Your task to perform on an android device: Search for seafood restaurants on Google Maps Image 0: 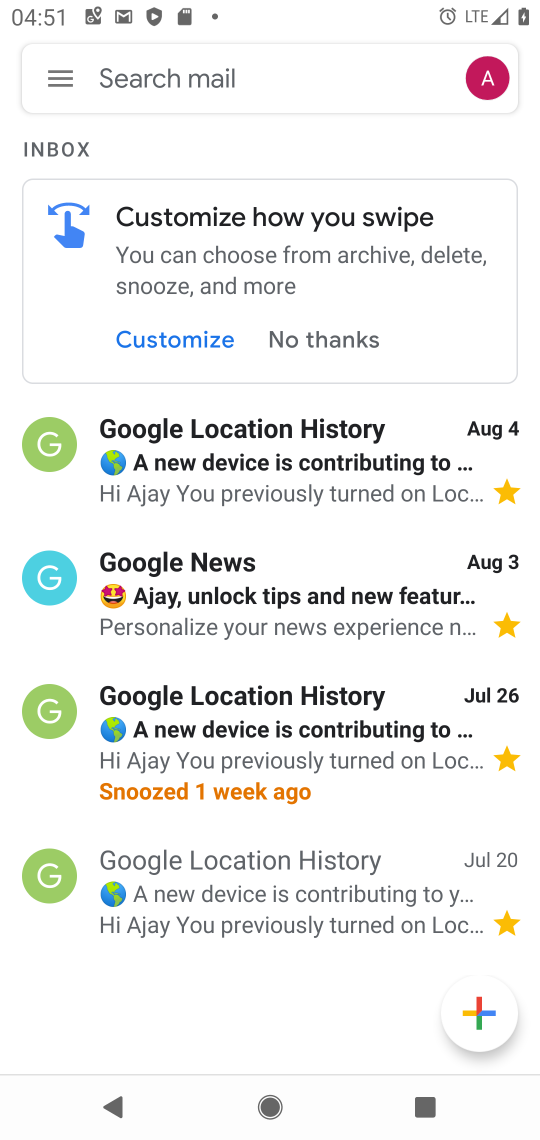
Step 0: press back button
Your task to perform on an android device: Search for seafood restaurants on Google Maps Image 1: 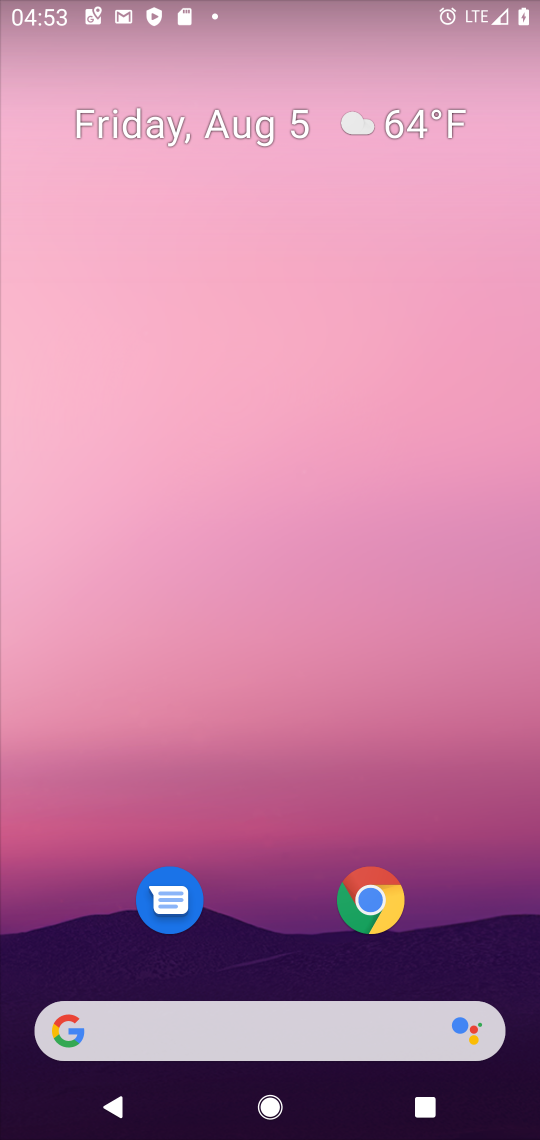
Step 1: drag from (283, 828) to (457, 238)
Your task to perform on an android device: Search for seafood restaurants on Google Maps Image 2: 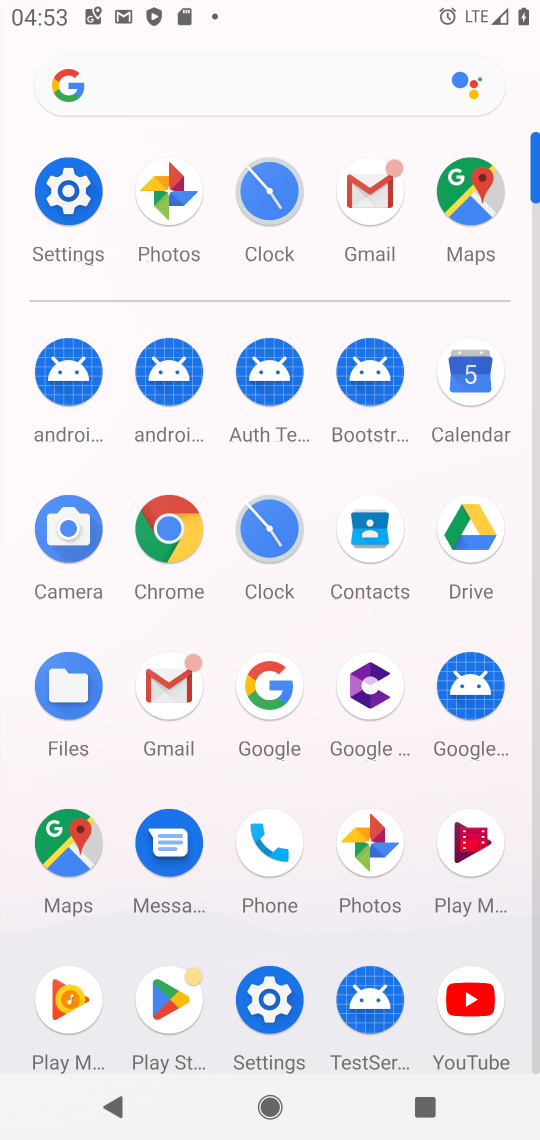
Step 2: click (63, 838)
Your task to perform on an android device: Search for seafood restaurants on Google Maps Image 3: 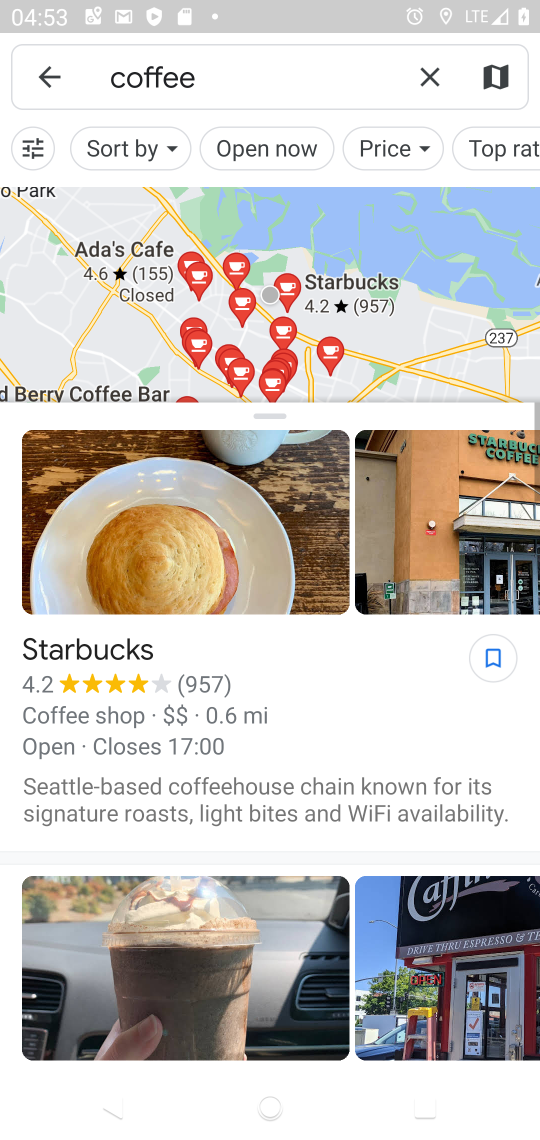
Step 3: click (432, 95)
Your task to perform on an android device: Search for seafood restaurants on Google Maps Image 4: 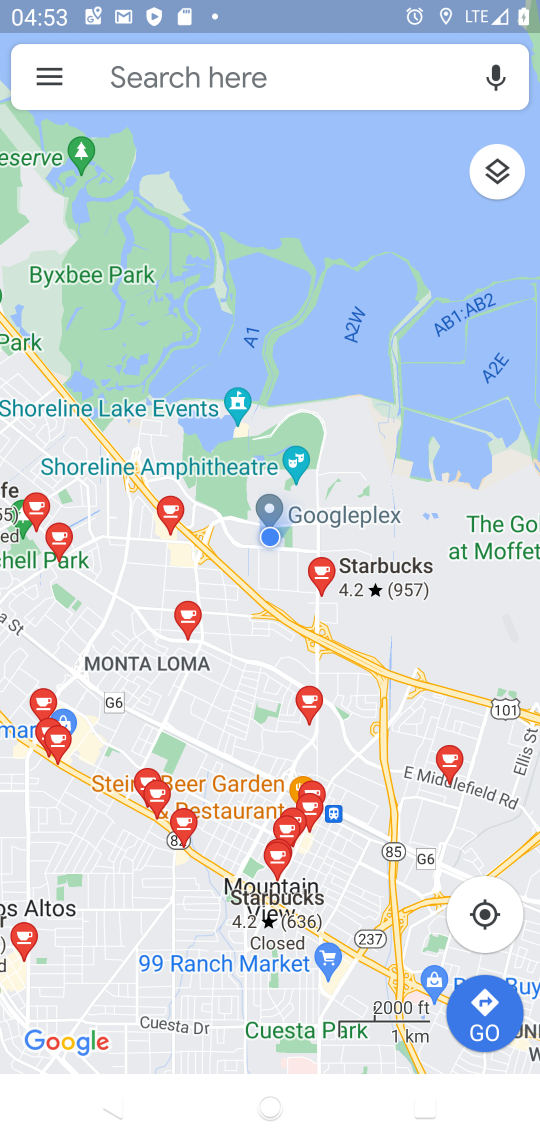
Step 4: click (259, 85)
Your task to perform on an android device: Search for seafood restaurants on Google Maps Image 5: 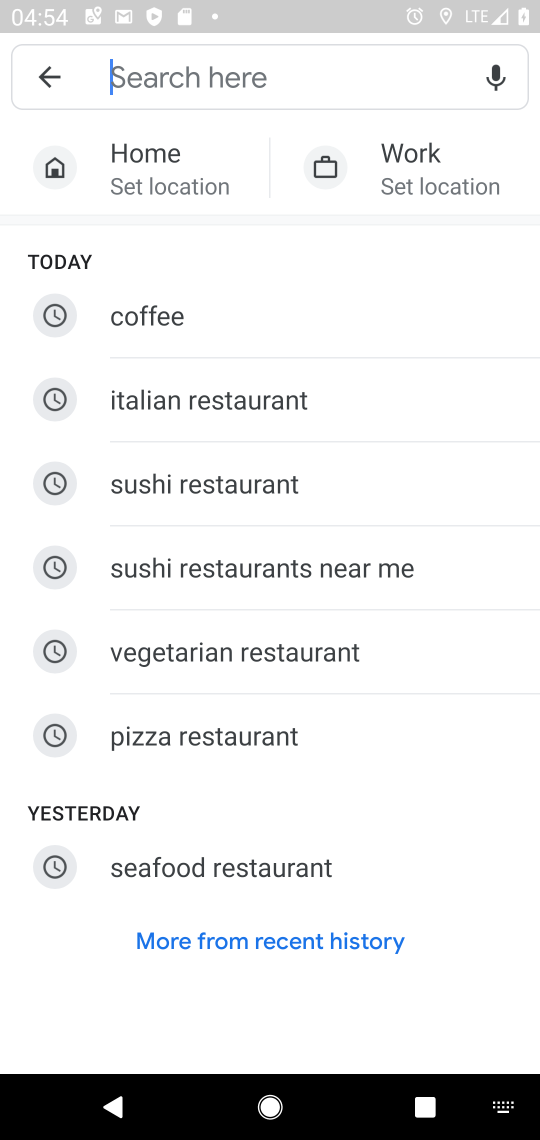
Step 5: click (290, 875)
Your task to perform on an android device: Search for seafood restaurants on Google Maps Image 6: 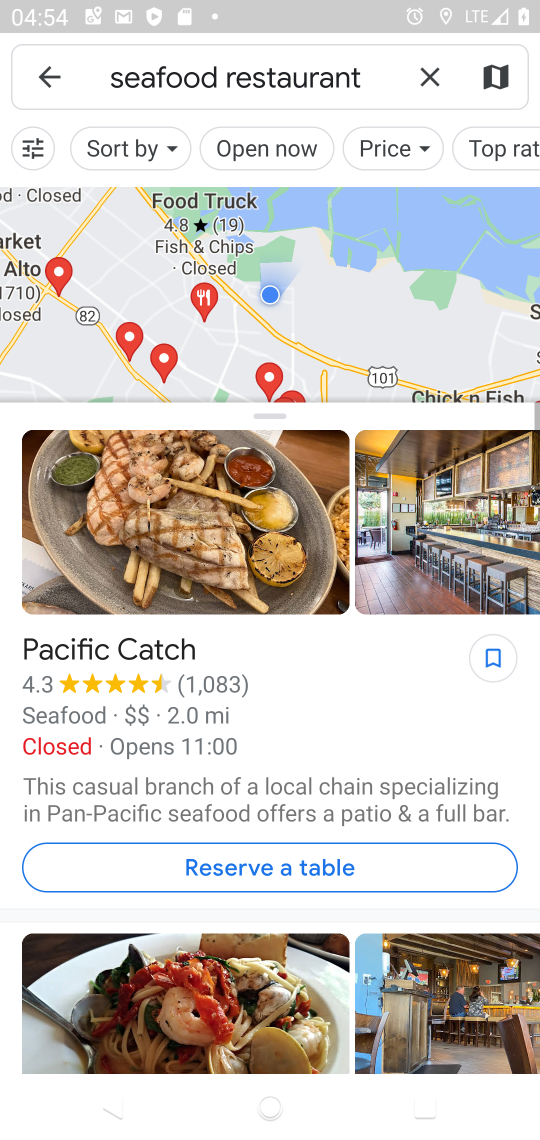
Step 6: task complete